Your task to perform on an android device: Empty the shopping cart on amazon.com. Search for dell xps on amazon.com, select the first entry, and add it to the cart. Image 0: 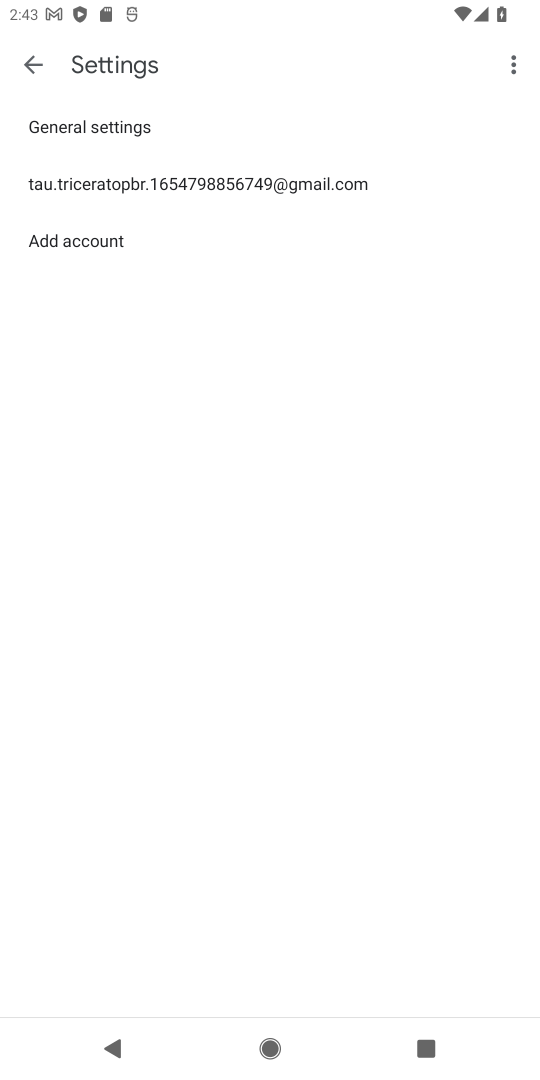
Step 0: press home button
Your task to perform on an android device: Empty the shopping cart on amazon.com. Search for dell xps on amazon.com, select the first entry, and add it to the cart. Image 1: 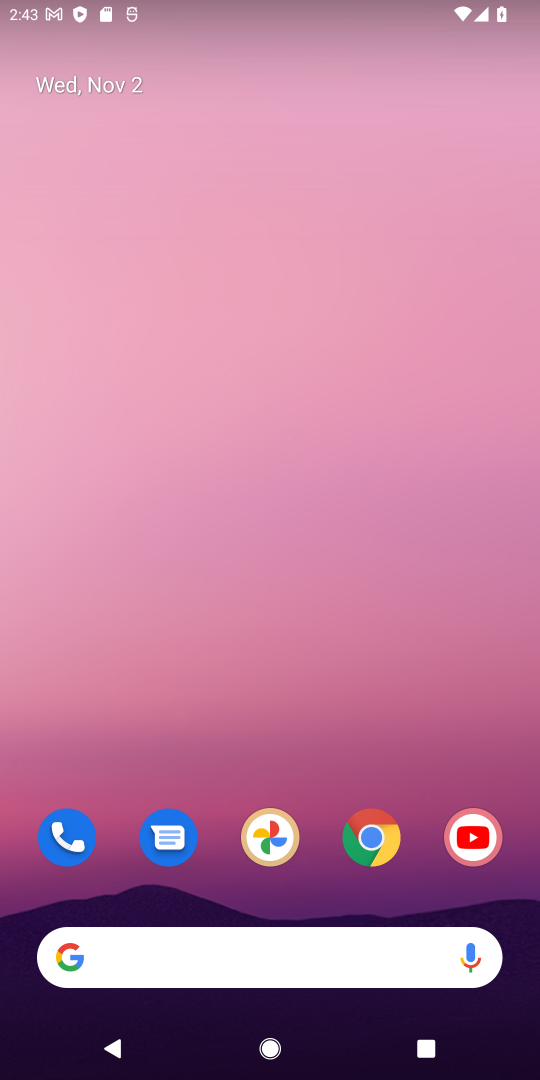
Step 1: drag from (308, 790) to (376, 37)
Your task to perform on an android device: Empty the shopping cart on amazon.com. Search for dell xps on amazon.com, select the first entry, and add it to the cart. Image 2: 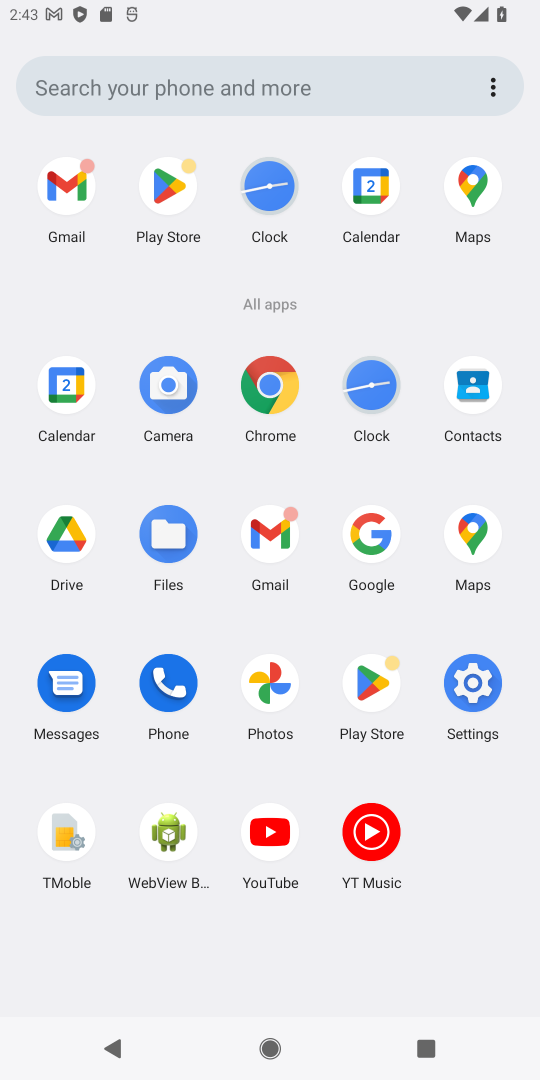
Step 2: click (270, 379)
Your task to perform on an android device: Empty the shopping cart on amazon.com. Search for dell xps on amazon.com, select the first entry, and add it to the cart. Image 3: 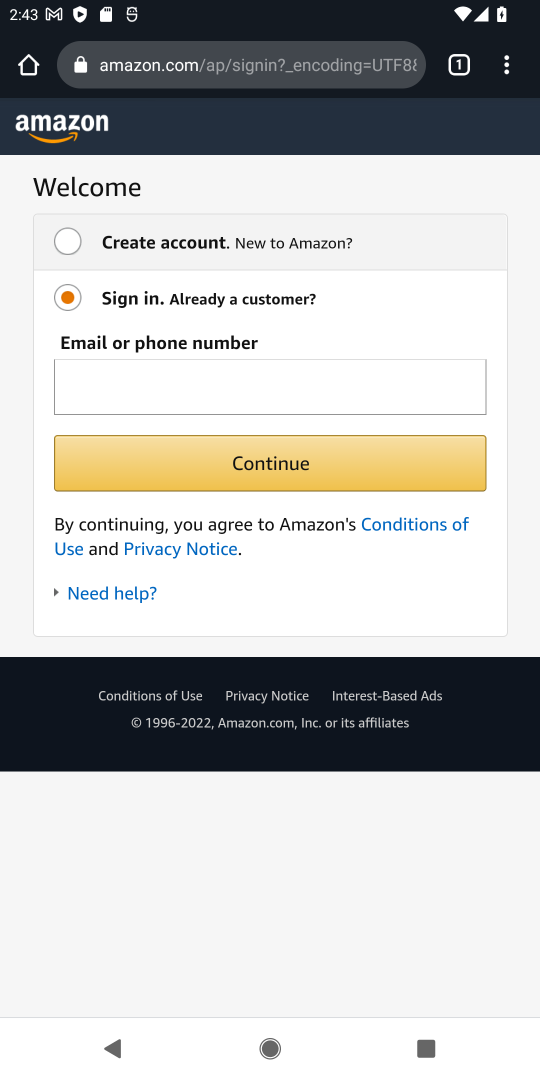
Step 3: click (176, 60)
Your task to perform on an android device: Empty the shopping cart on amazon.com. Search for dell xps on amazon.com, select the first entry, and add it to the cart. Image 4: 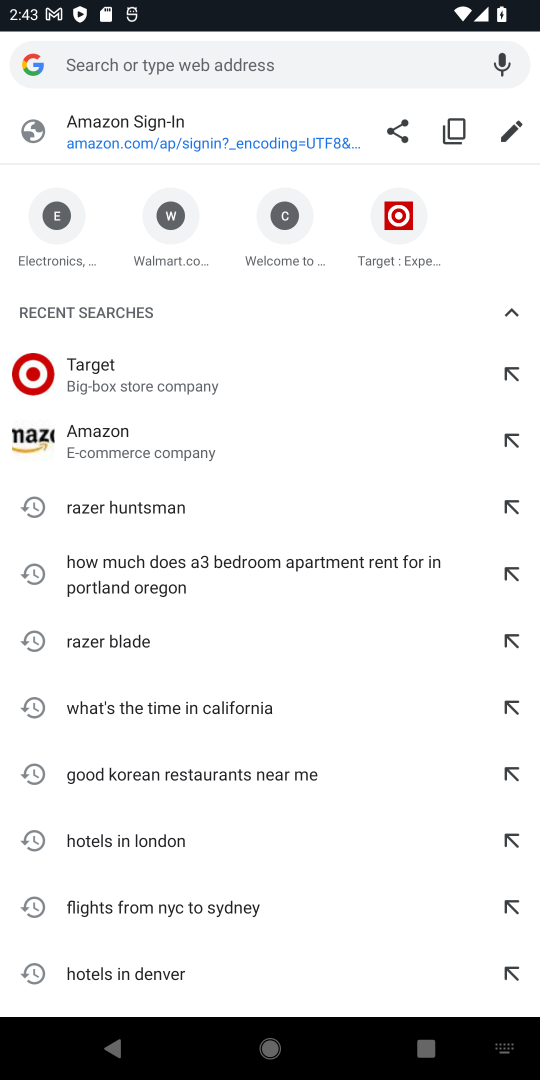
Step 4: click (122, 437)
Your task to perform on an android device: Empty the shopping cart on amazon.com. Search for dell xps on amazon.com, select the first entry, and add it to the cart. Image 5: 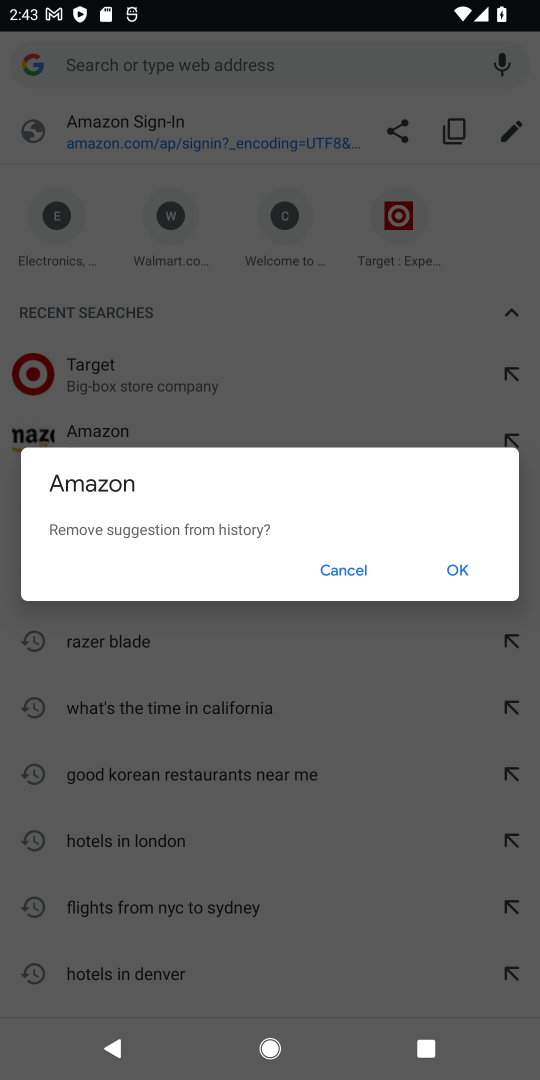
Step 5: click (336, 572)
Your task to perform on an android device: Empty the shopping cart on amazon.com. Search for dell xps on amazon.com, select the first entry, and add it to the cart. Image 6: 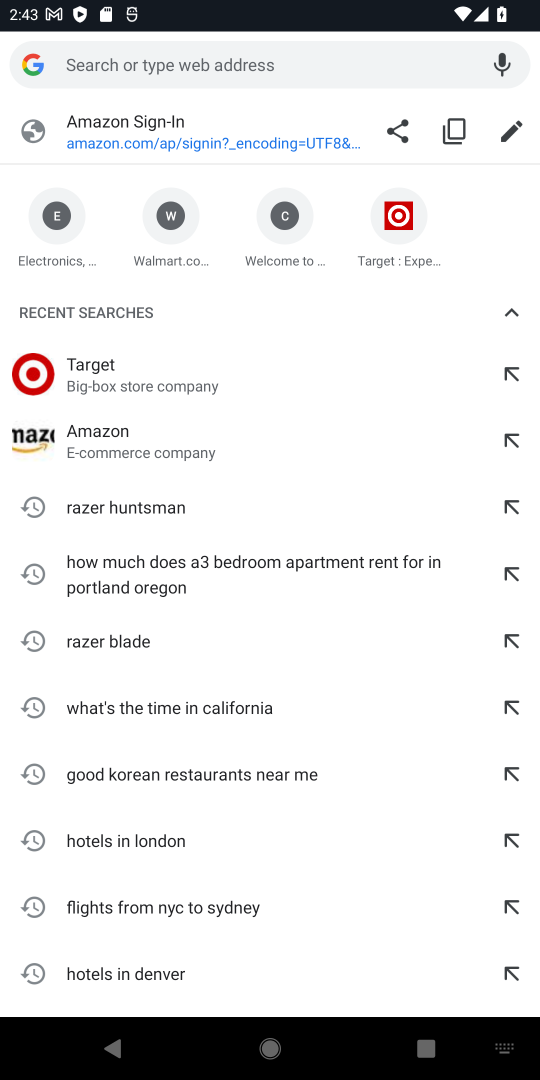
Step 6: click (210, 124)
Your task to perform on an android device: Empty the shopping cart on amazon.com. Search for dell xps on amazon.com, select the first entry, and add it to the cart. Image 7: 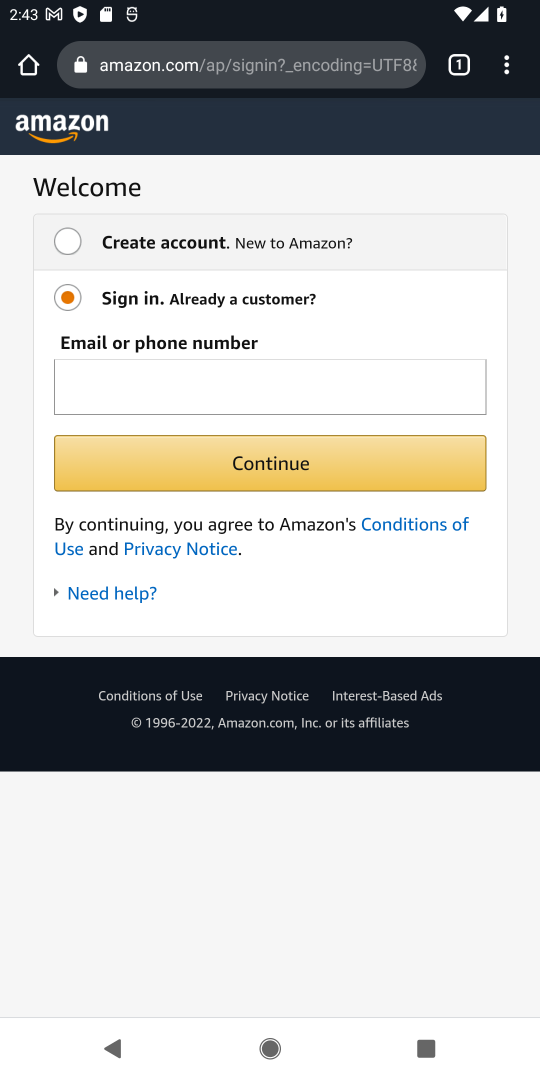
Step 7: press back button
Your task to perform on an android device: Empty the shopping cart on amazon.com. Search for dell xps on amazon.com, select the first entry, and add it to the cart. Image 8: 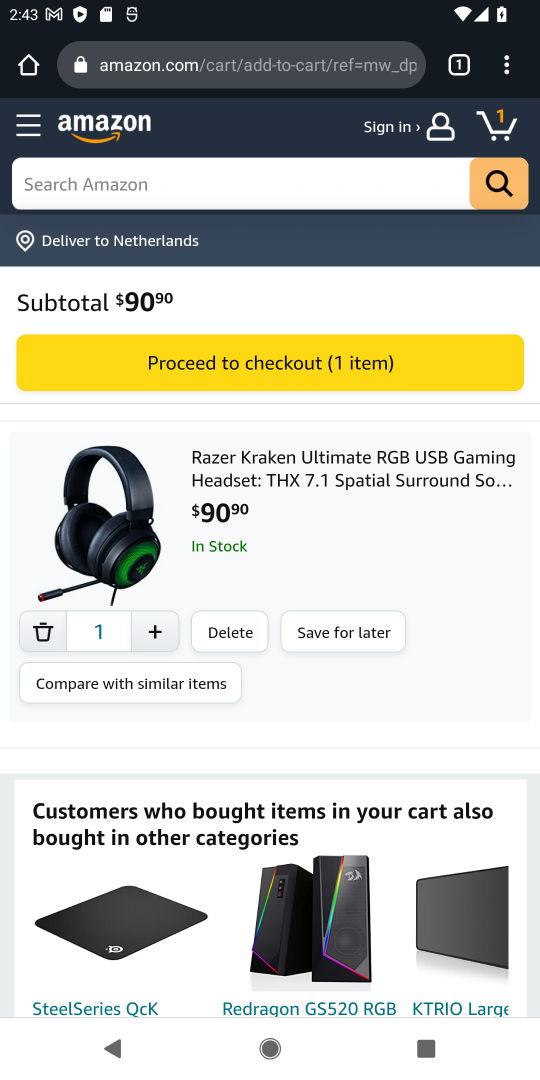
Step 8: click (39, 623)
Your task to perform on an android device: Empty the shopping cart on amazon.com. Search for dell xps on amazon.com, select the first entry, and add it to the cart. Image 9: 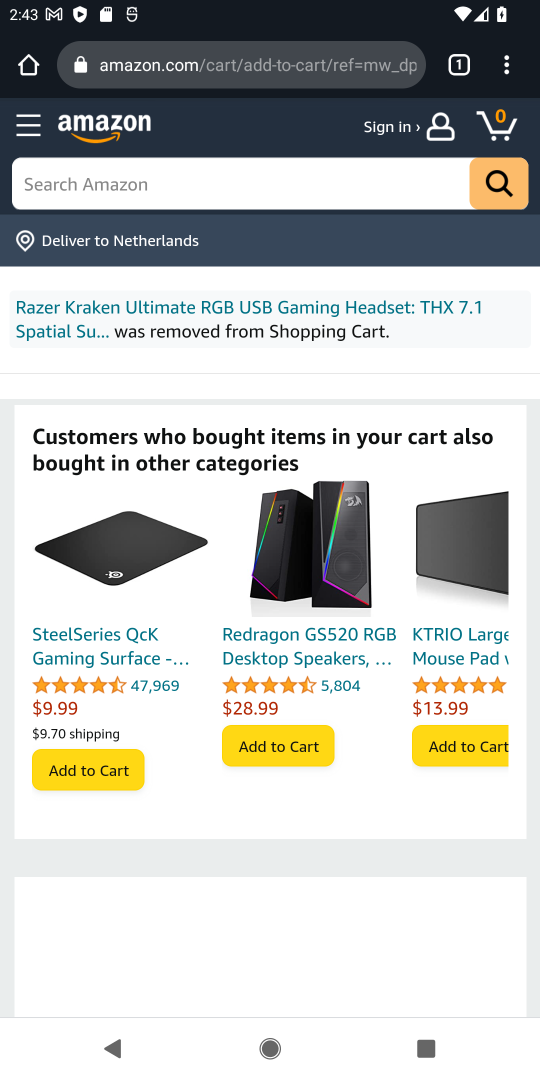
Step 9: click (118, 186)
Your task to perform on an android device: Empty the shopping cart on amazon.com. Search for dell xps on amazon.com, select the first entry, and add it to the cart. Image 10: 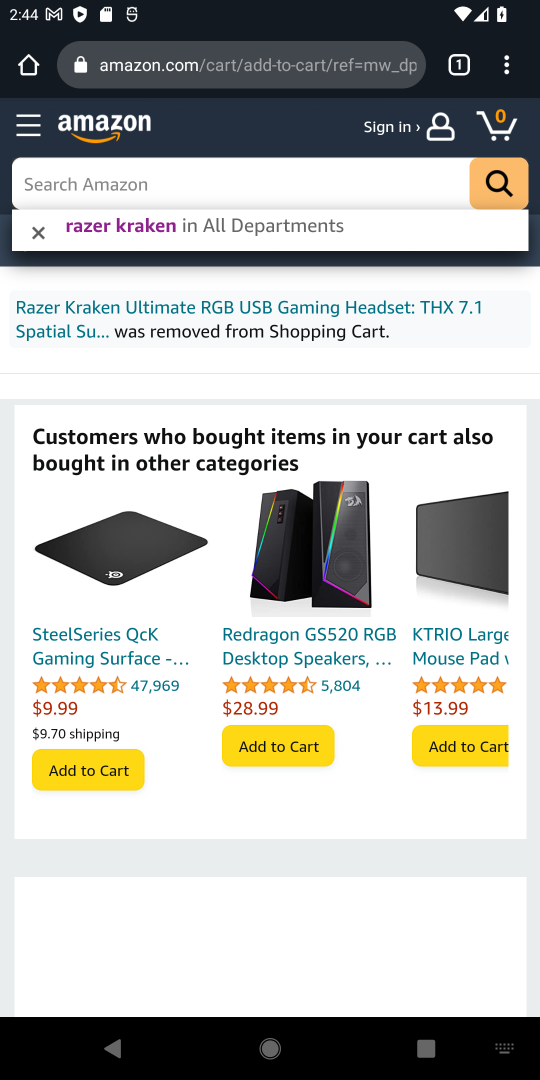
Step 10: click (120, 177)
Your task to perform on an android device: Empty the shopping cart on amazon.com. Search for dell xps on amazon.com, select the first entry, and add it to the cart. Image 11: 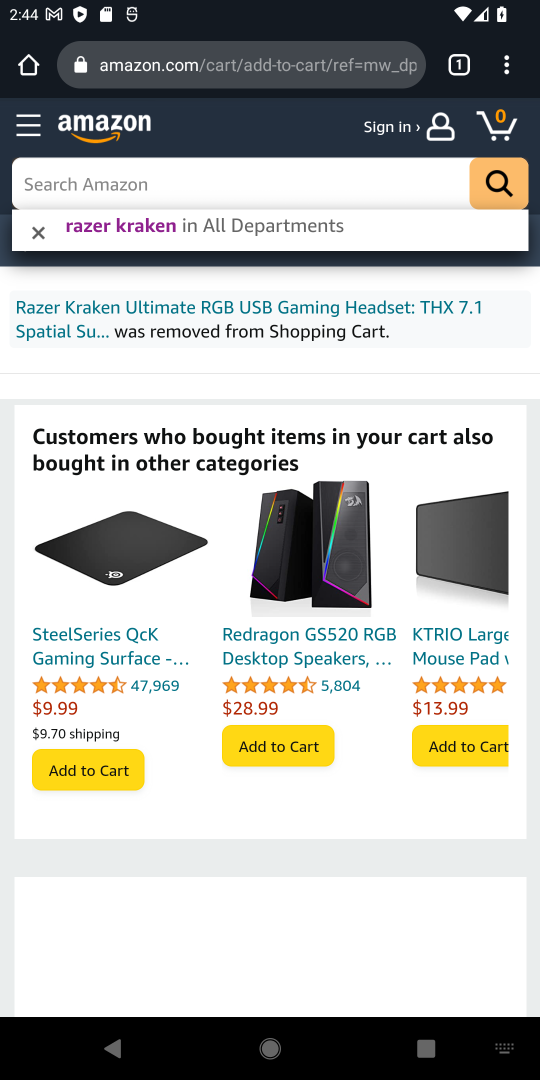
Step 11: type "dell xps"
Your task to perform on an android device: Empty the shopping cart on amazon.com. Search for dell xps on amazon.com, select the first entry, and add it to the cart. Image 12: 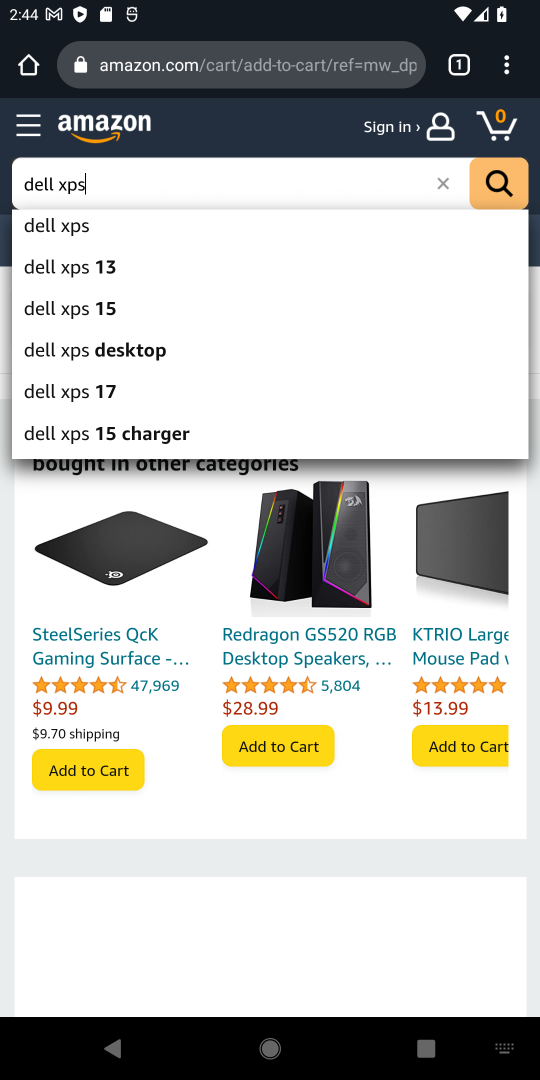
Step 12: click (48, 220)
Your task to perform on an android device: Empty the shopping cart on amazon.com. Search for dell xps on amazon.com, select the first entry, and add it to the cart. Image 13: 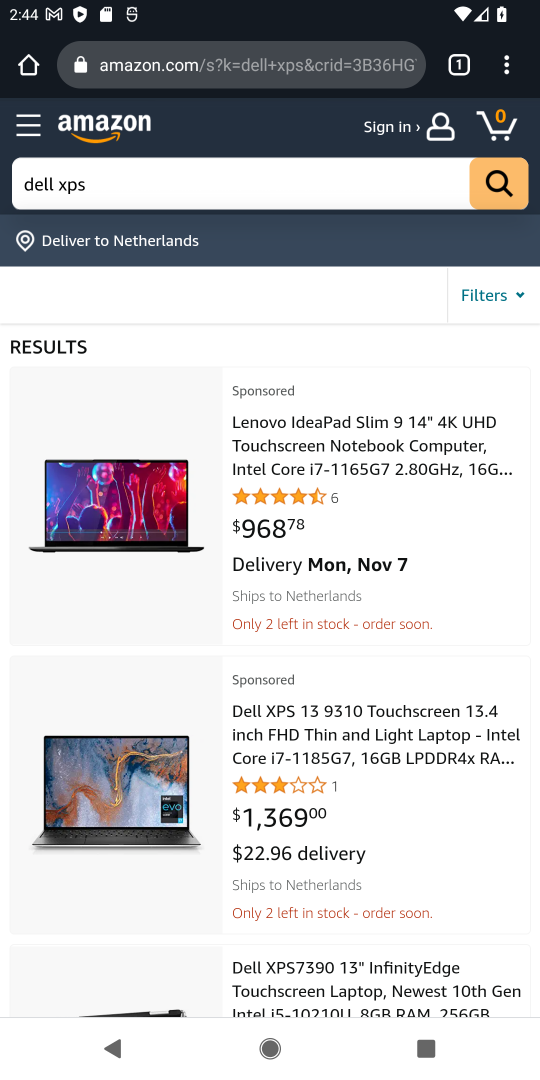
Step 13: click (342, 766)
Your task to perform on an android device: Empty the shopping cart on amazon.com. Search for dell xps on amazon.com, select the first entry, and add it to the cart. Image 14: 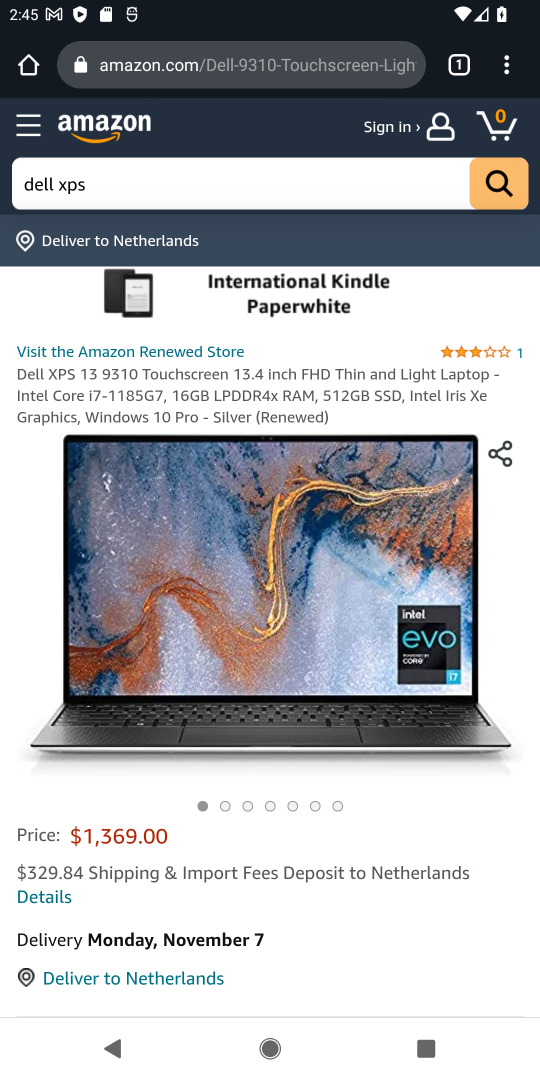
Step 14: drag from (325, 938) to (385, 416)
Your task to perform on an android device: Empty the shopping cart on amazon.com. Search for dell xps on amazon.com, select the first entry, and add it to the cart. Image 15: 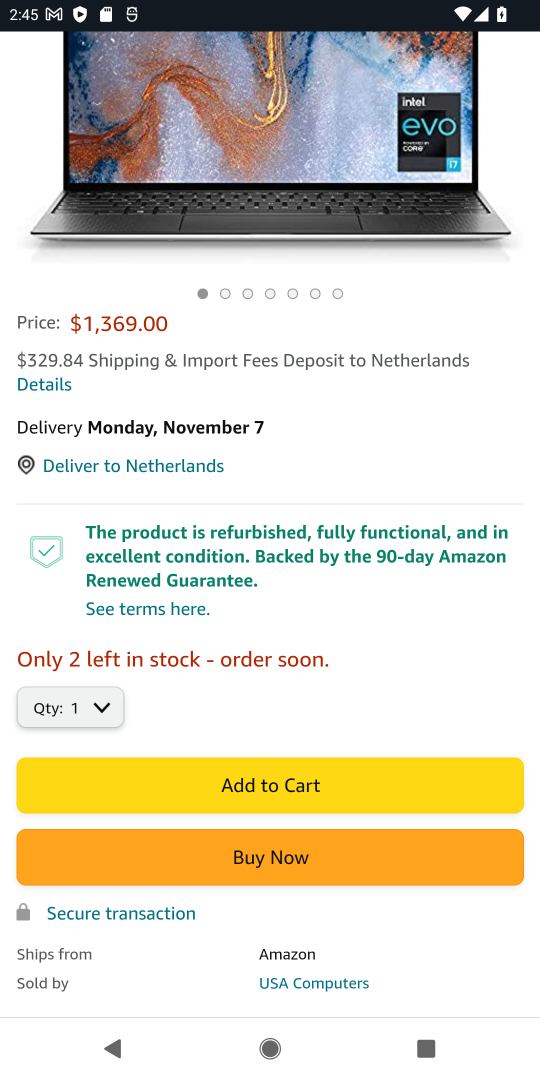
Step 15: click (266, 783)
Your task to perform on an android device: Empty the shopping cart on amazon.com. Search for dell xps on amazon.com, select the first entry, and add it to the cart. Image 16: 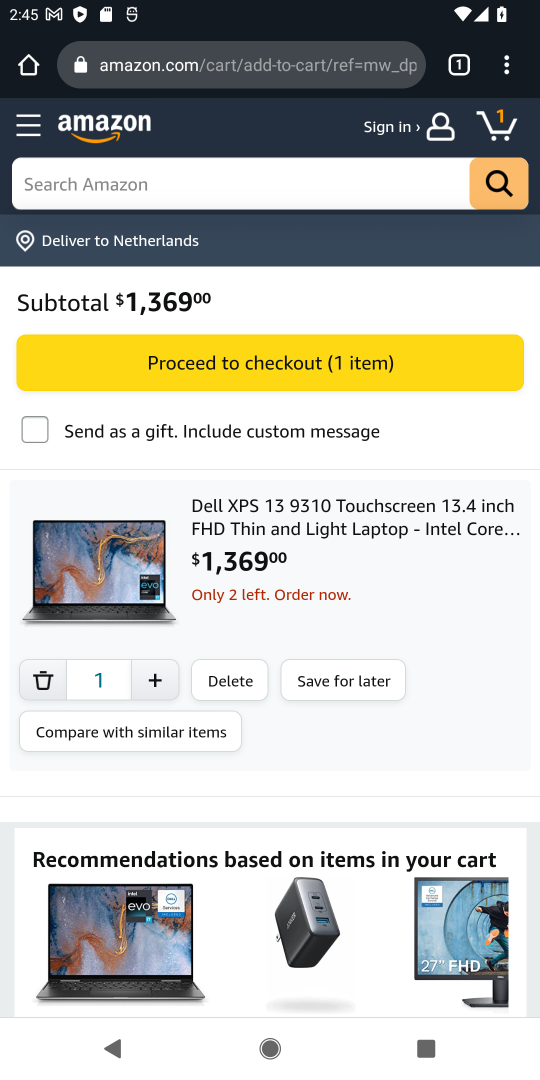
Step 16: task complete